Your task to perform on an android device: Open Yahoo.com Image 0: 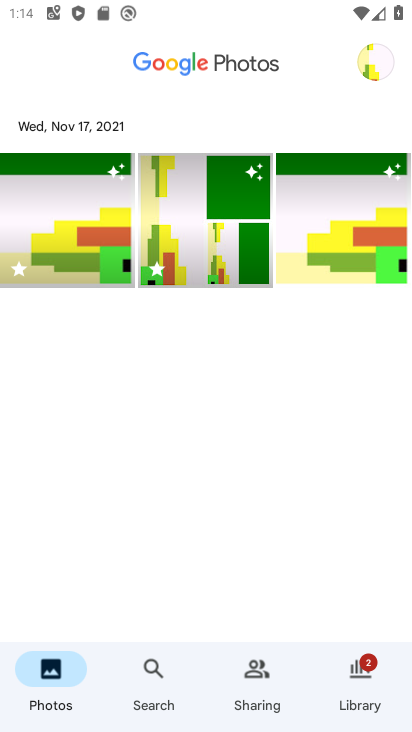
Step 0: press home button
Your task to perform on an android device: Open Yahoo.com Image 1: 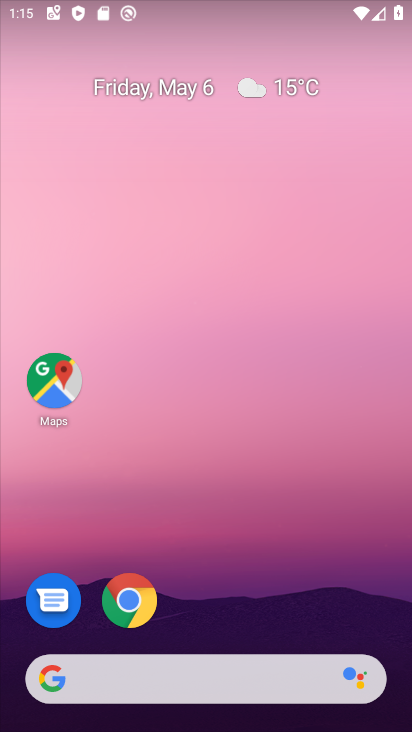
Step 1: drag from (339, 603) to (294, 118)
Your task to perform on an android device: Open Yahoo.com Image 2: 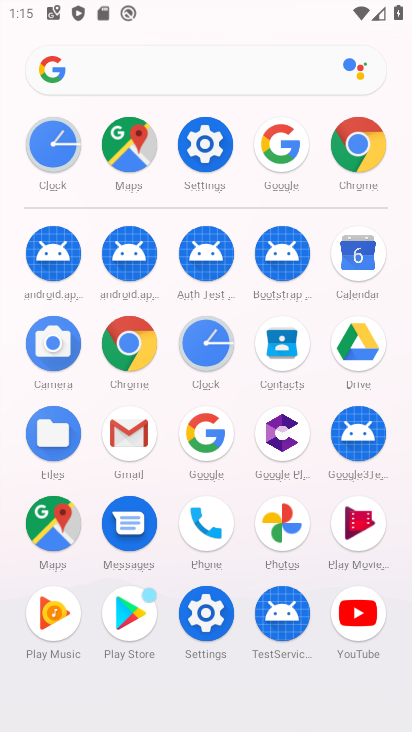
Step 2: click (133, 366)
Your task to perform on an android device: Open Yahoo.com Image 3: 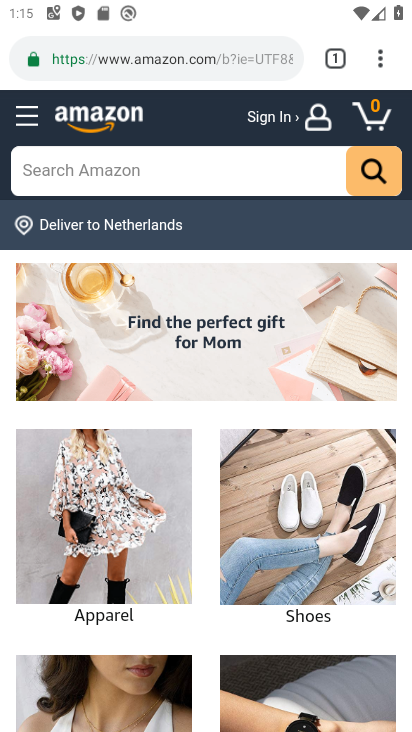
Step 3: press back button
Your task to perform on an android device: Open Yahoo.com Image 4: 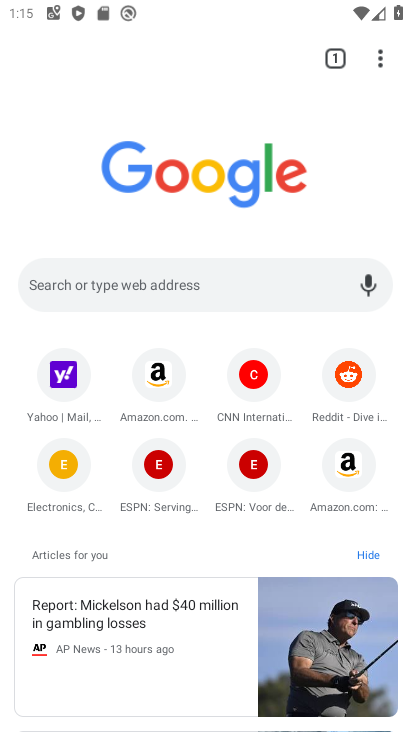
Step 4: click (71, 375)
Your task to perform on an android device: Open Yahoo.com Image 5: 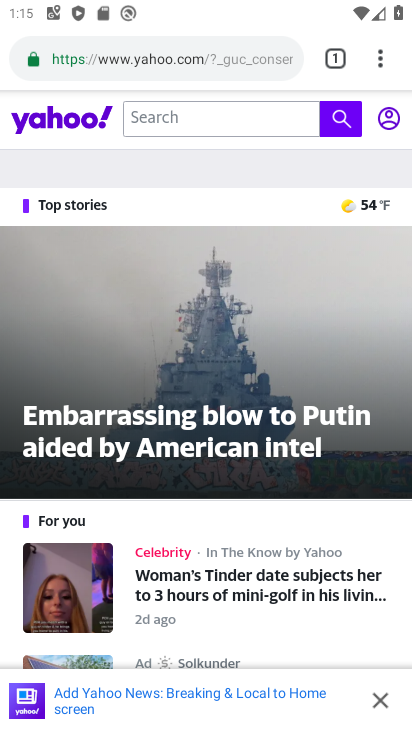
Step 5: task complete